Your task to perform on an android device: clear history in the chrome app Image 0: 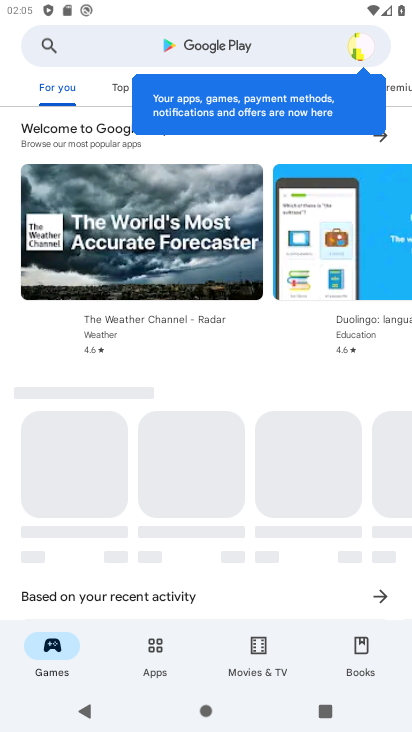
Step 0: press home button
Your task to perform on an android device: clear history in the chrome app Image 1: 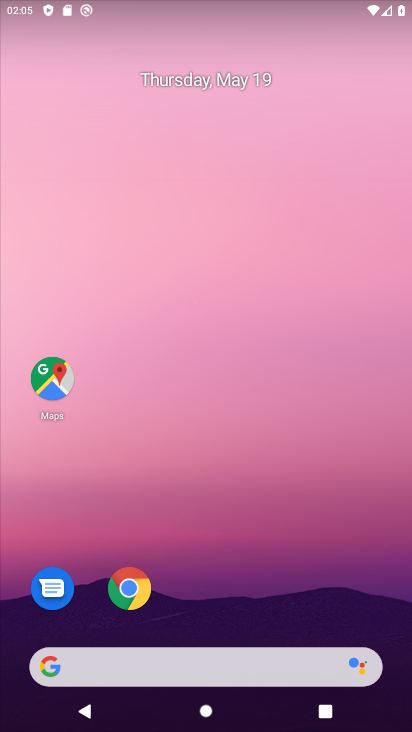
Step 1: click (139, 581)
Your task to perform on an android device: clear history in the chrome app Image 2: 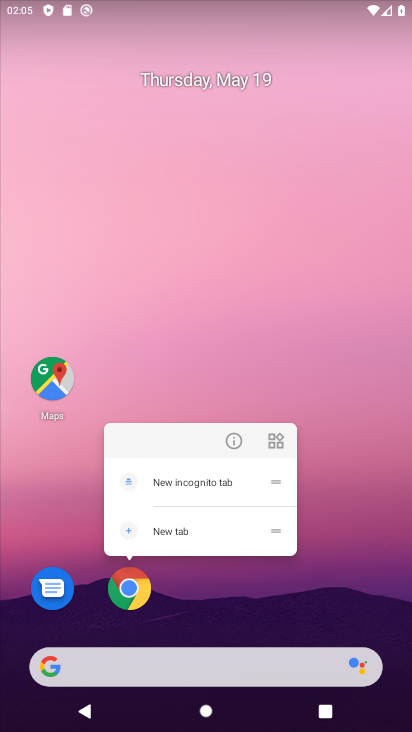
Step 2: click (130, 586)
Your task to perform on an android device: clear history in the chrome app Image 3: 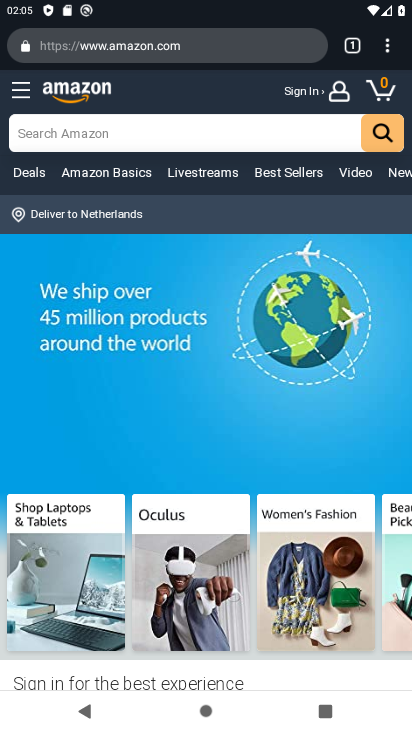
Step 3: click (383, 41)
Your task to perform on an android device: clear history in the chrome app Image 4: 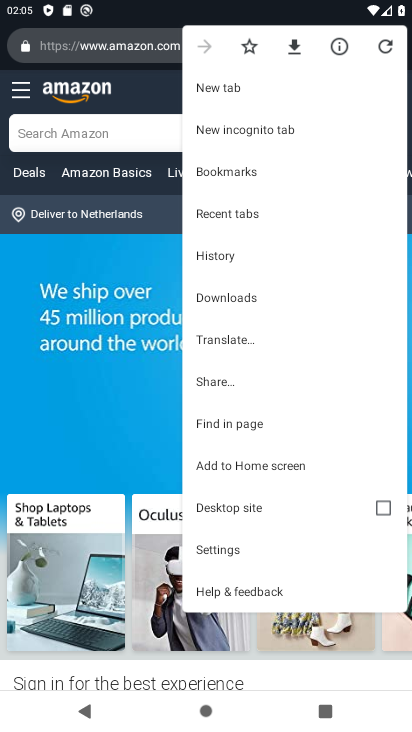
Step 4: click (229, 542)
Your task to perform on an android device: clear history in the chrome app Image 5: 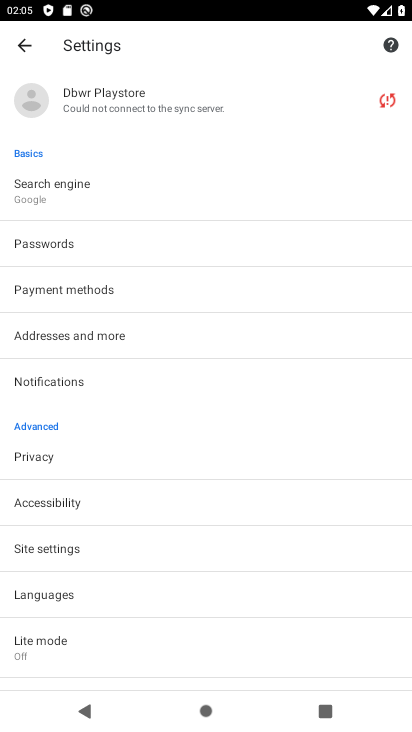
Step 5: click (81, 465)
Your task to perform on an android device: clear history in the chrome app Image 6: 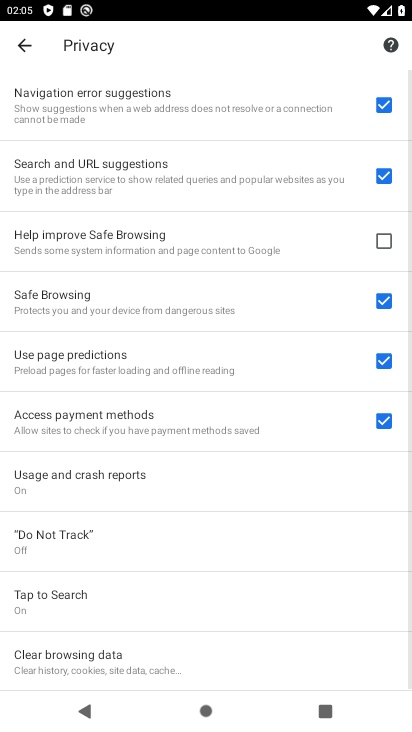
Step 6: click (132, 647)
Your task to perform on an android device: clear history in the chrome app Image 7: 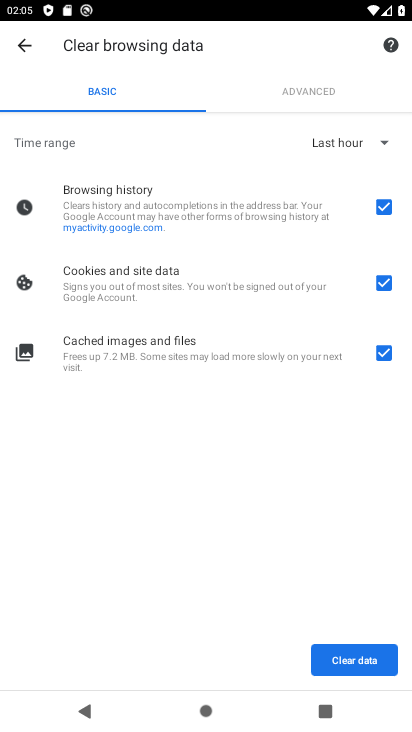
Step 7: click (389, 282)
Your task to perform on an android device: clear history in the chrome app Image 8: 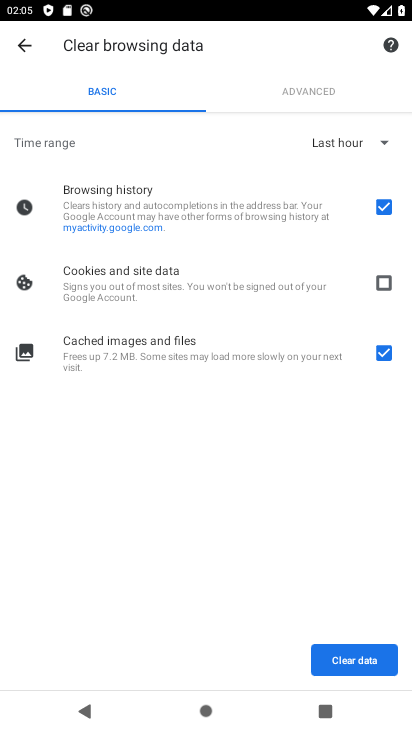
Step 8: click (381, 354)
Your task to perform on an android device: clear history in the chrome app Image 9: 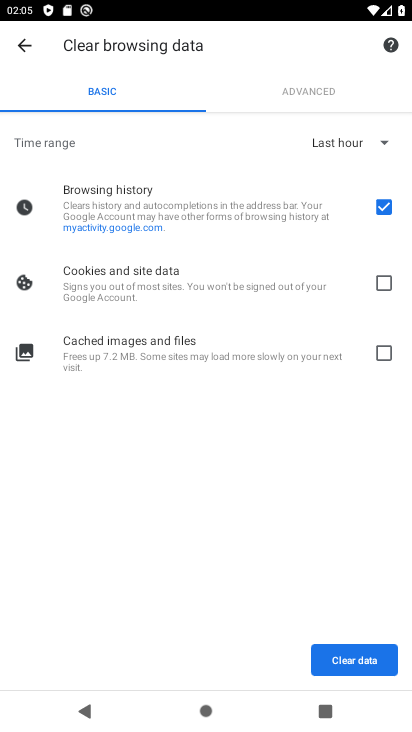
Step 9: click (355, 660)
Your task to perform on an android device: clear history in the chrome app Image 10: 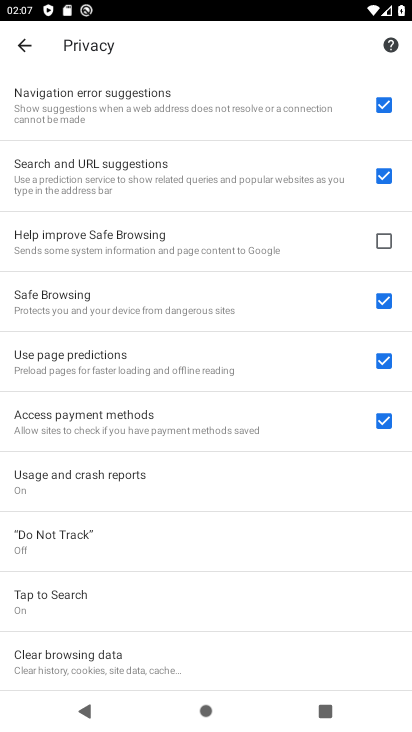
Step 10: task complete